Your task to perform on an android device: turn off javascript in the chrome app Image 0: 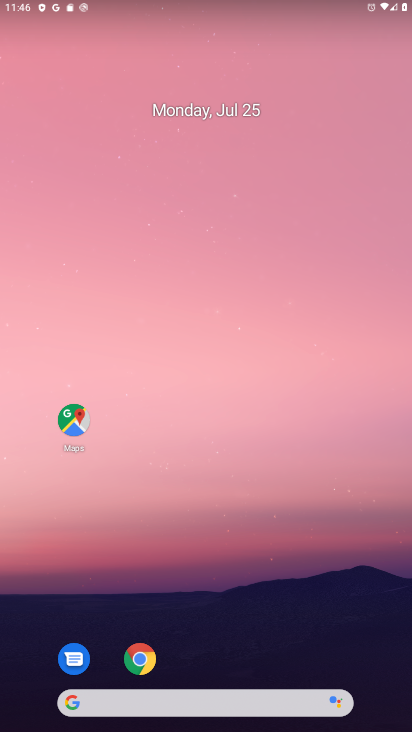
Step 0: click (141, 662)
Your task to perform on an android device: turn off javascript in the chrome app Image 1: 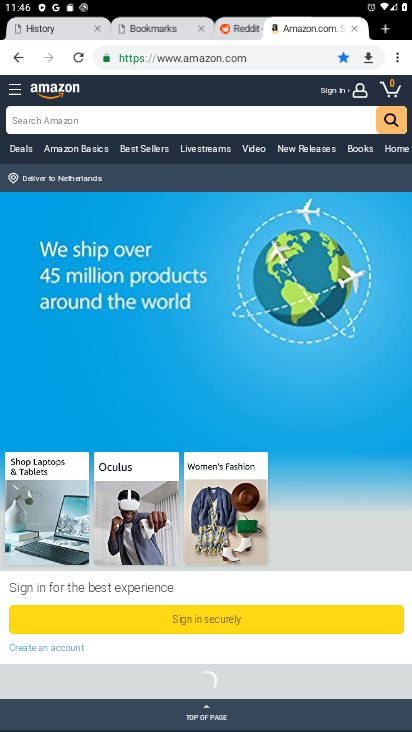
Step 1: click (397, 56)
Your task to perform on an android device: turn off javascript in the chrome app Image 2: 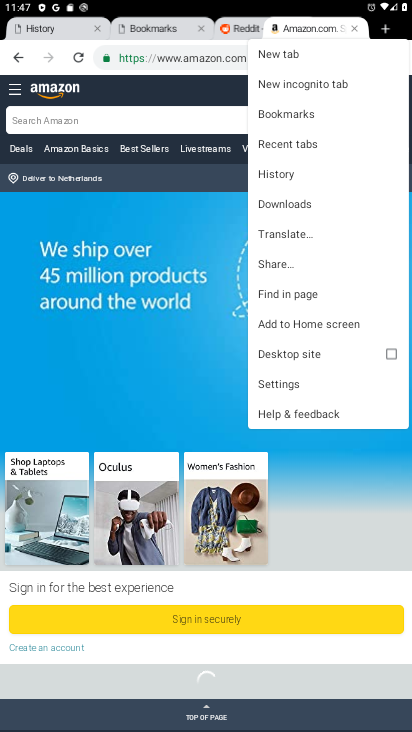
Step 2: click (285, 382)
Your task to perform on an android device: turn off javascript in the chrome app Image 3: 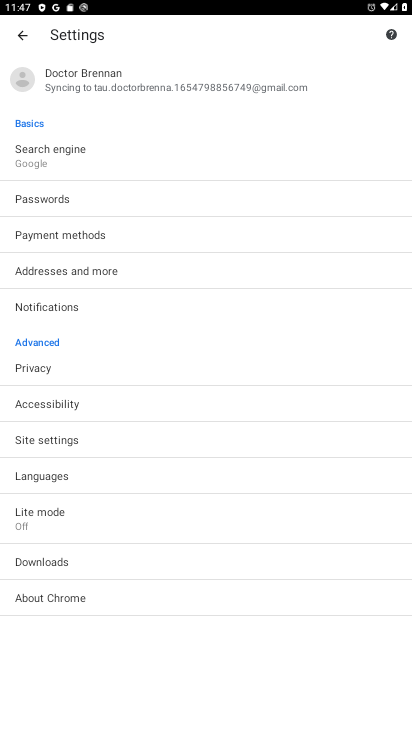
Step 3: click (45, 439)
Your task to perform on an android device: turn off javascript in the chrome app Image 4: 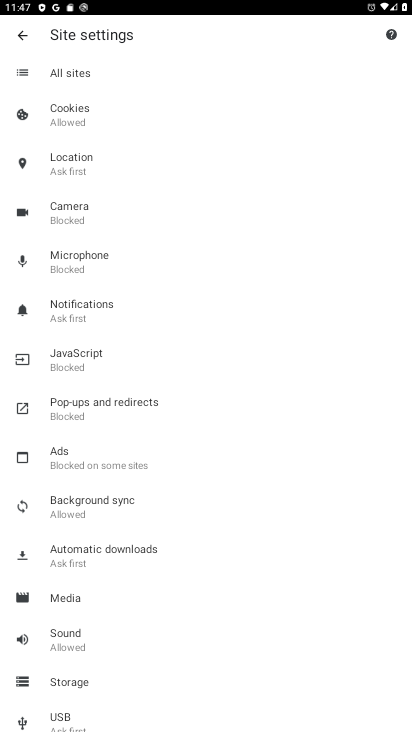
Step 4: click (77, 355)
Your task to perform on an android device: turn off javascript in the chrome app Image 5: 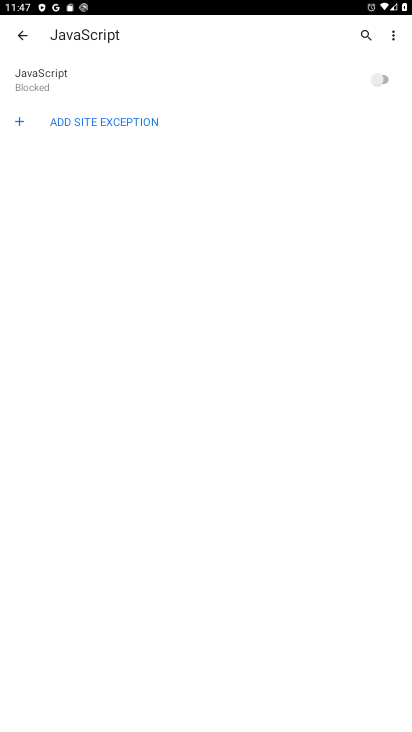
Step 5: task complete